Your task to perform on an android device: What's the weather going to be tomorrow? Image 0: 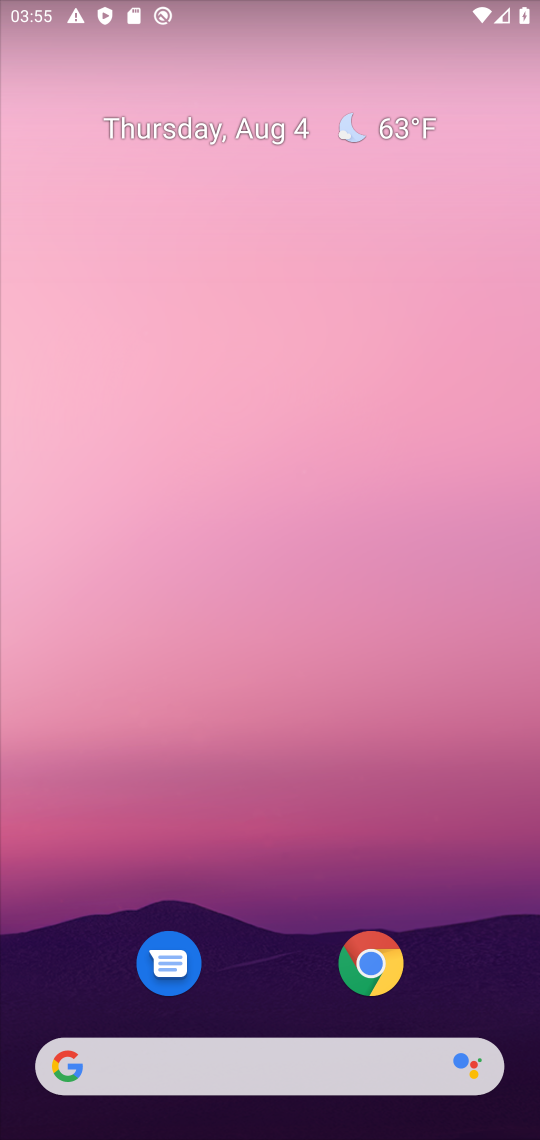
Step 0: drag from (455, 992) to (206, 1128)
Your task to perform on an android device: What's the weather going to be tomorrow? Image 1: 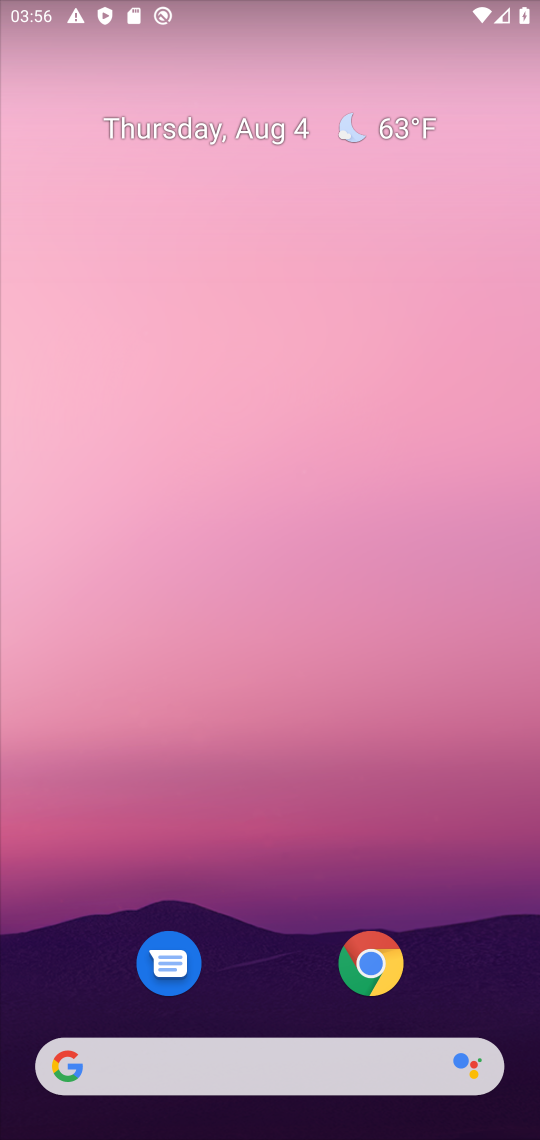
Step 1: click (168, 1075)
Your task to perform on an android device: What's the weather going to be tomorrow? Image 2: 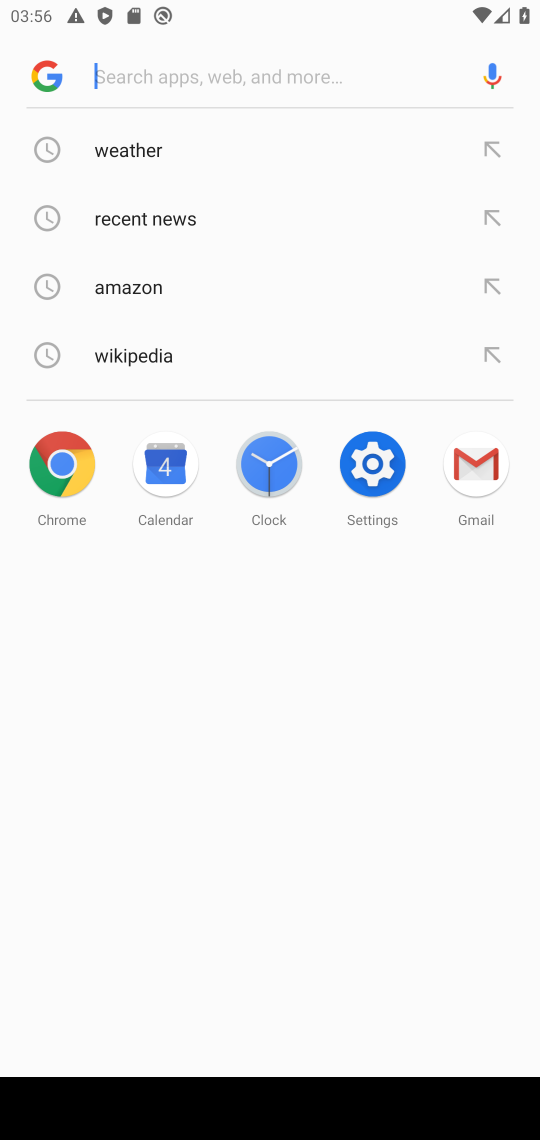
Step 2: click (141, 168)
Your task to perform on an android device: What's the weather going to be tomorrow? Image 3: 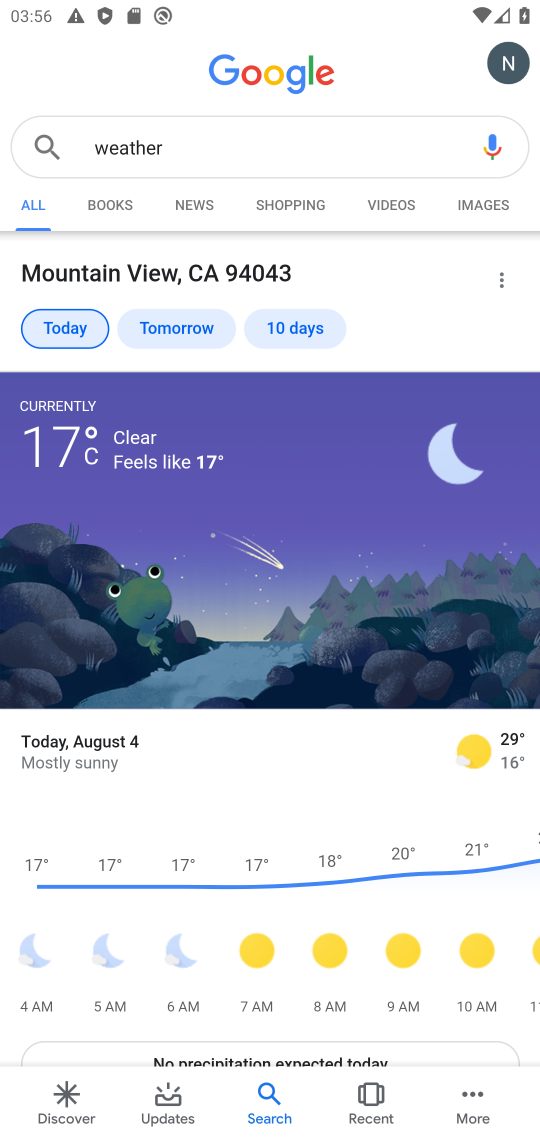
Step 3: click (159, 335)
Your task to perform on an android device: What's the weather going to be tomorrow? Image 4: 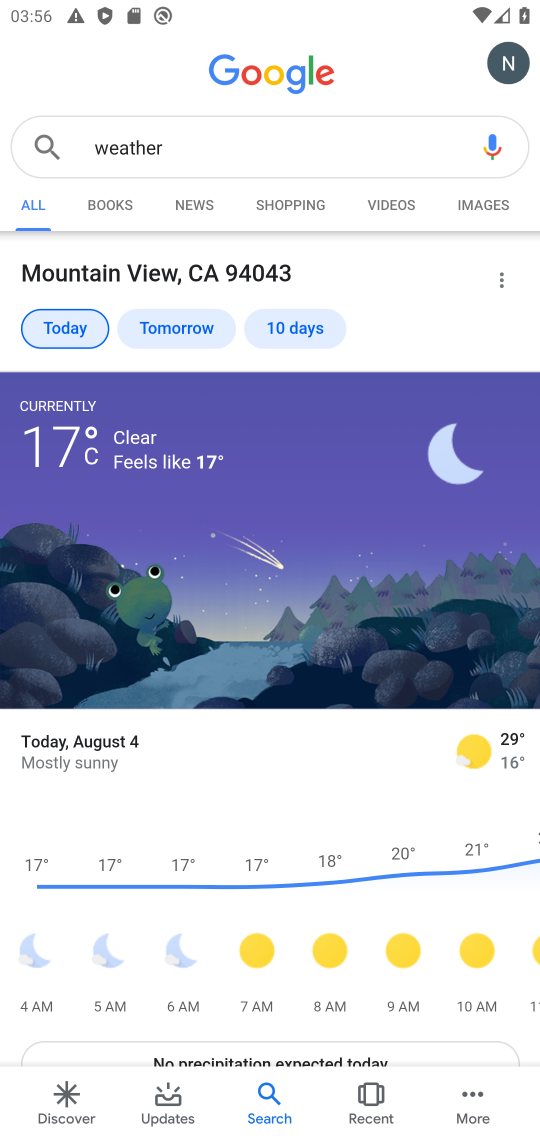
Step 4: click (177, 339)
Your task to perform on an android device: What's the weather going to be tomorrow? Image 5: 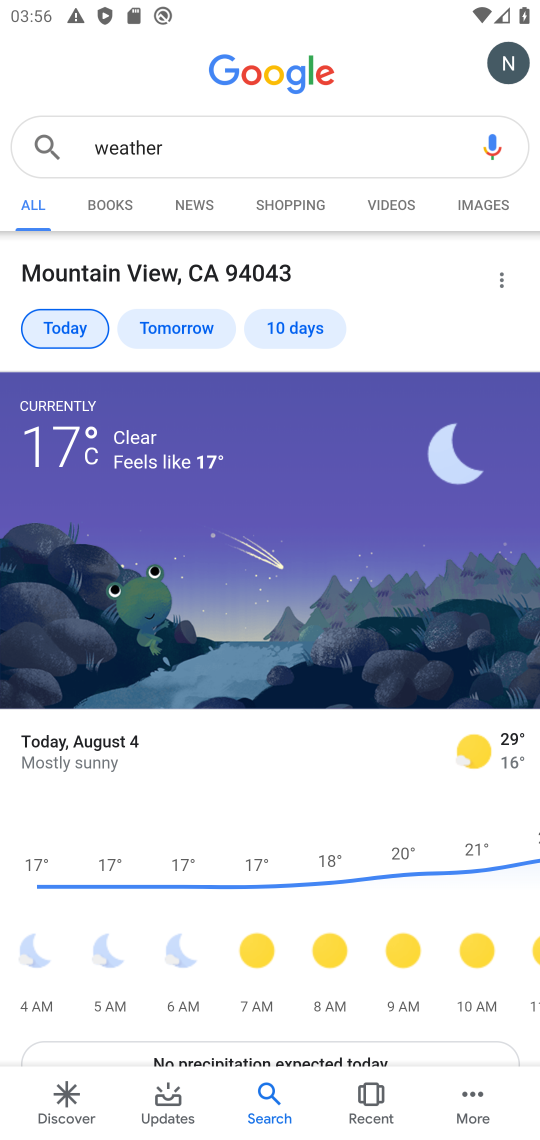
Step 5: click (307, 320)
Your task to perform on an android device: What's the weather going to be tomorrow? Image 6: 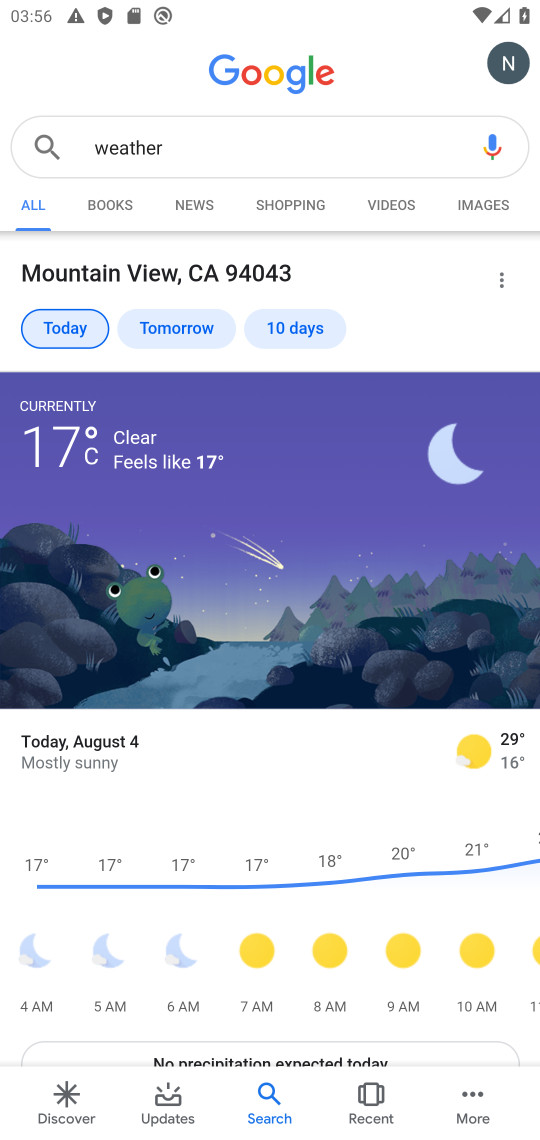
Step 6: click (282, 338)
Your task to perform on an android device: What's the weather going to be tomorrow? Image 7: 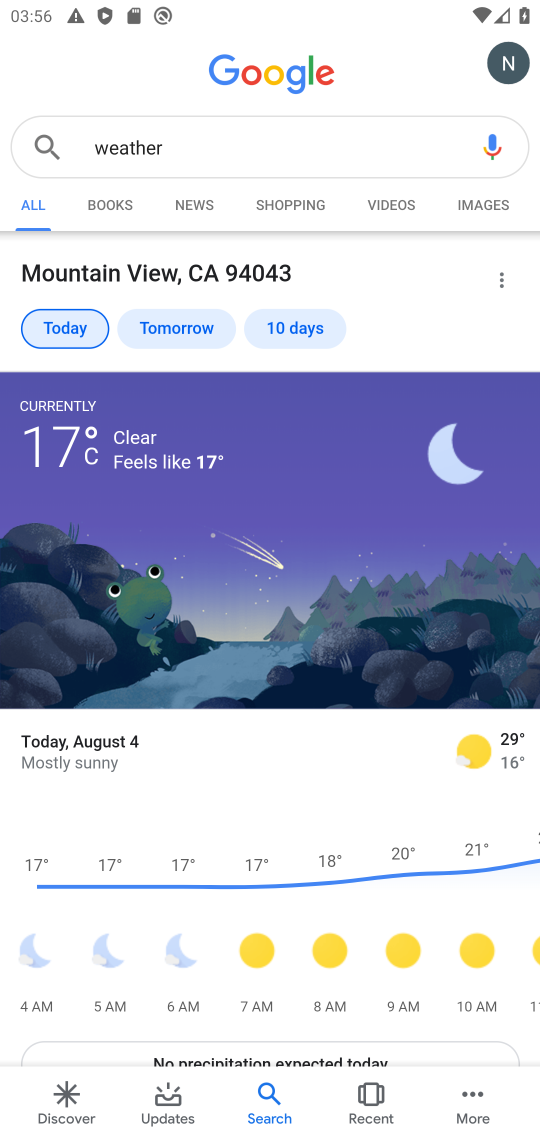
Step 7: click (192, 330)
Your task to perform on an android device: What's the weather going to be tomorrow? Image 8: 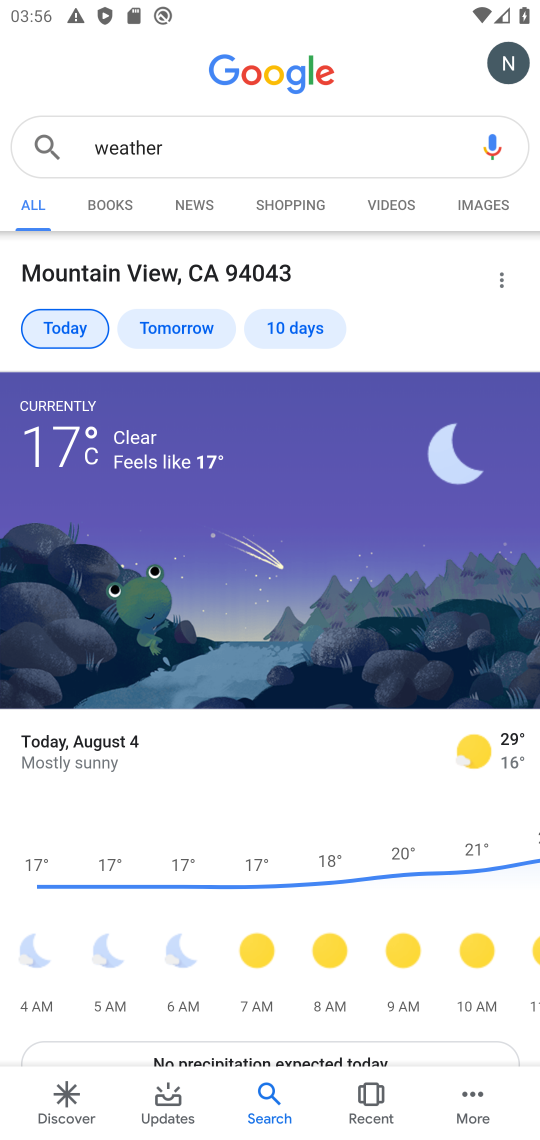
Step 8: task complete